Your task to perform on an android device: check data usage Image 0: 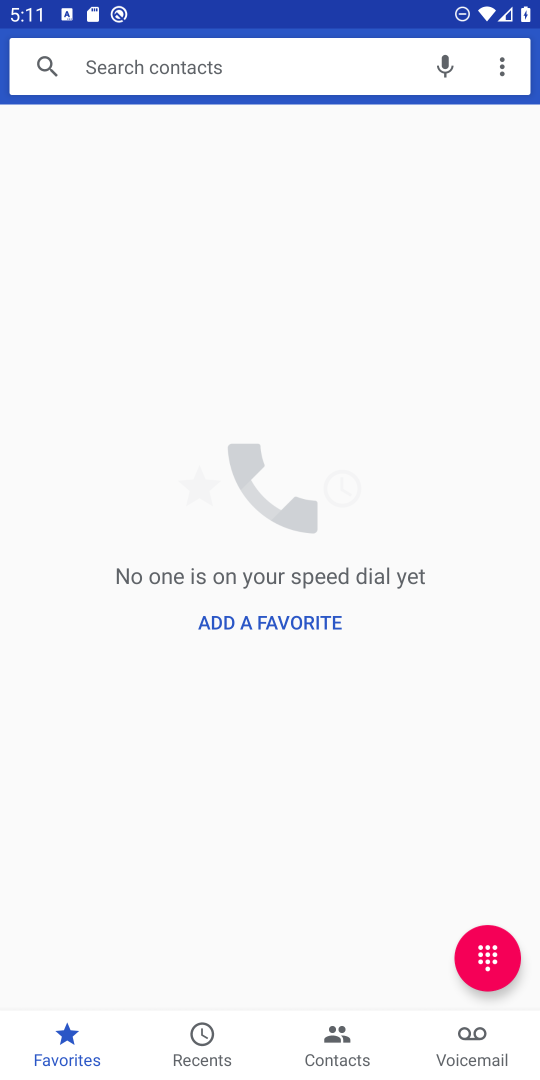
Step 0: press home button
Your task to perform on an android device: check data usage Image 1: 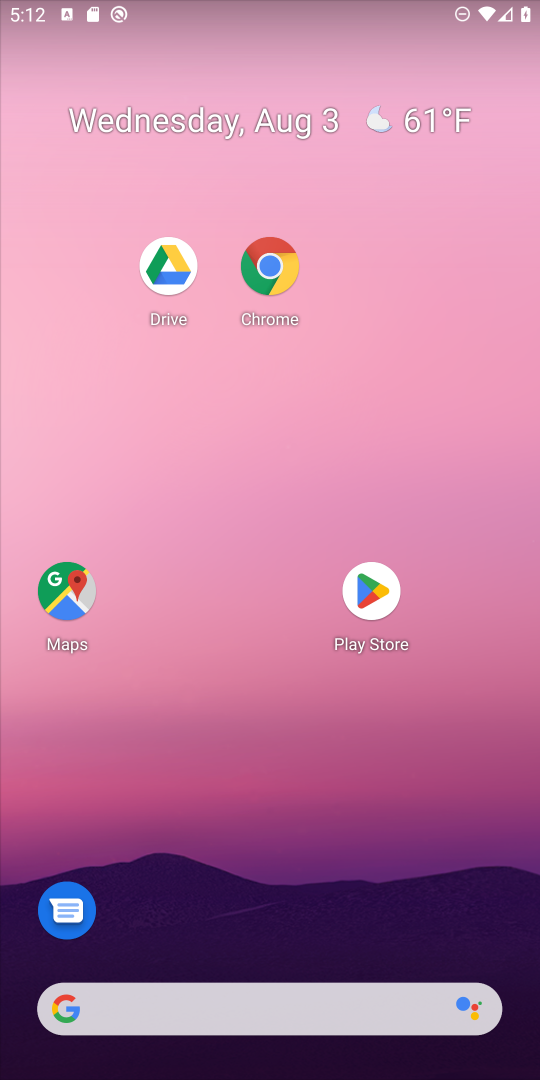
Step 1: drag from (402, 850) to (444, 0)
Your task to perform on an android device: check data usage Image 2: 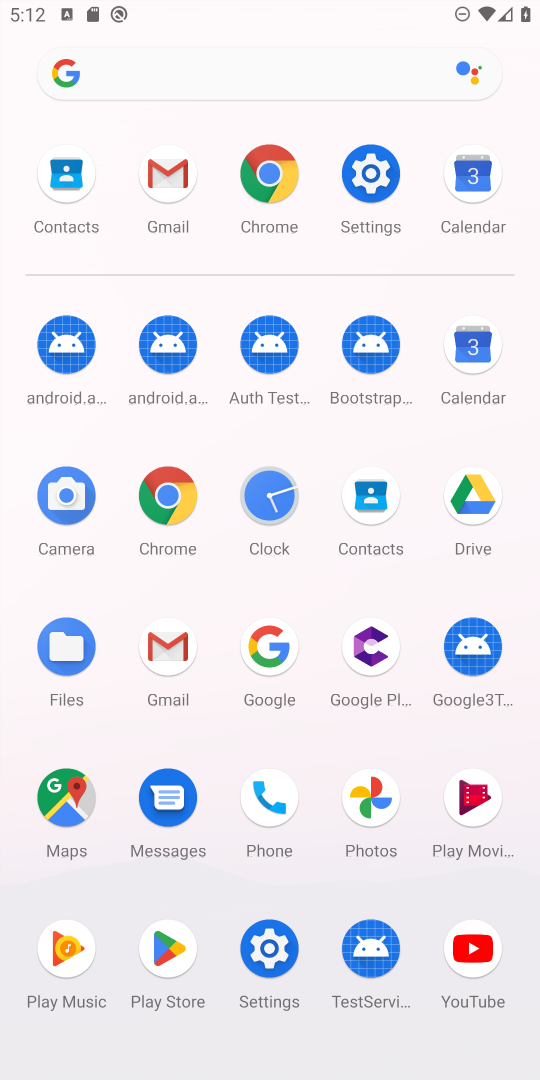
Step 2: click (377, 277)
Your task to perform on an android device: check data usage Image 3: 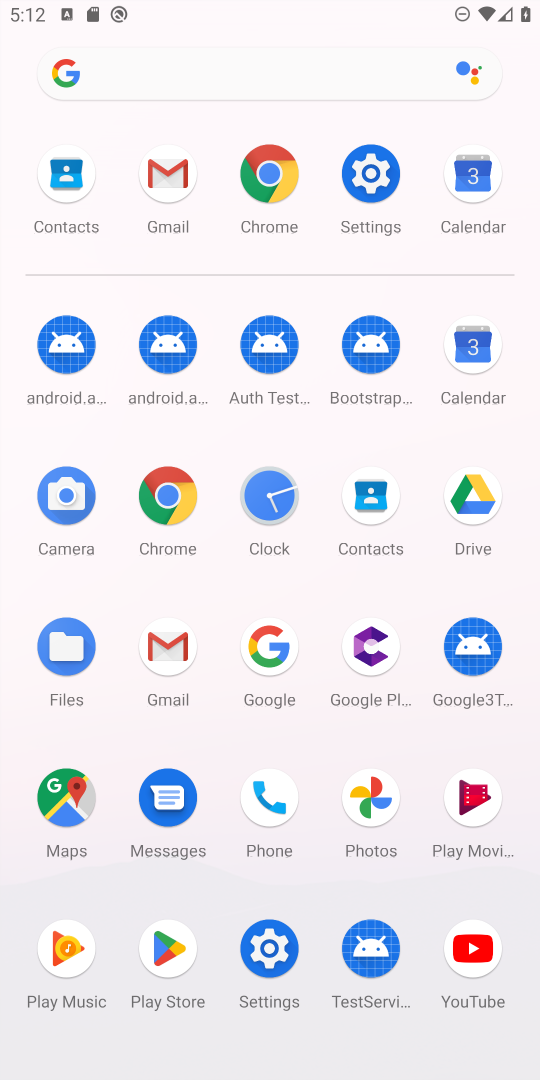
Step 3: click (358, 163)
Your task to perform on an android device: check data usage Image 4: 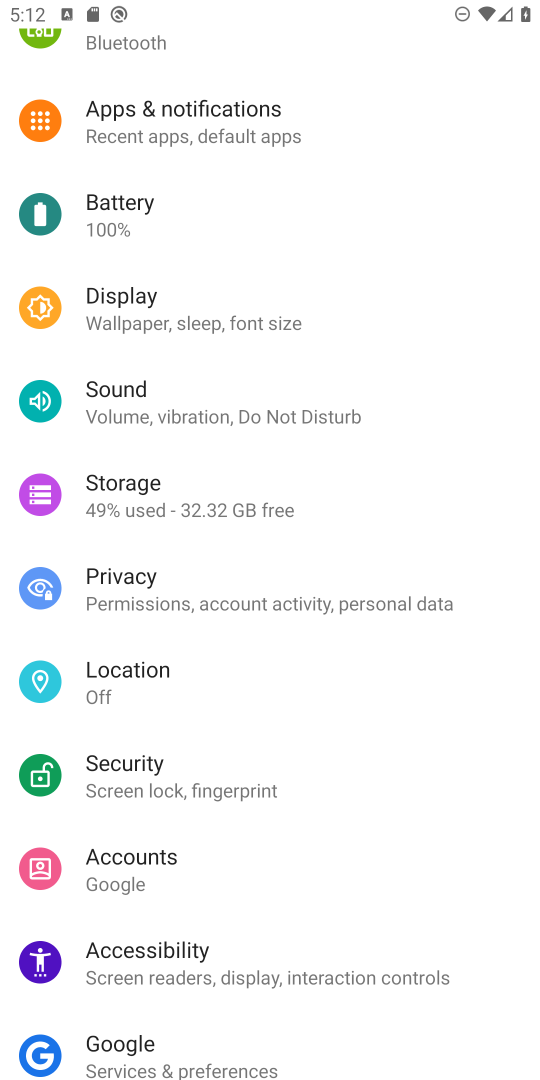
Step 4: drag from (403, 334) to (428, 945)
Your task to perform on an android device: check data usage Image 5: 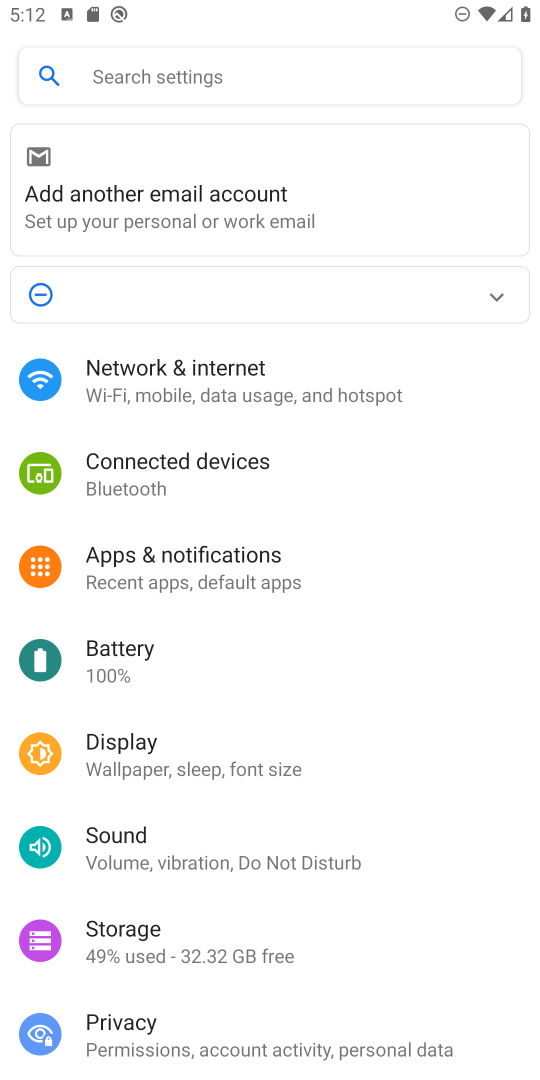
Step 5: click (301, 384)
Your task to perform on an android device: check data usage Image 6: 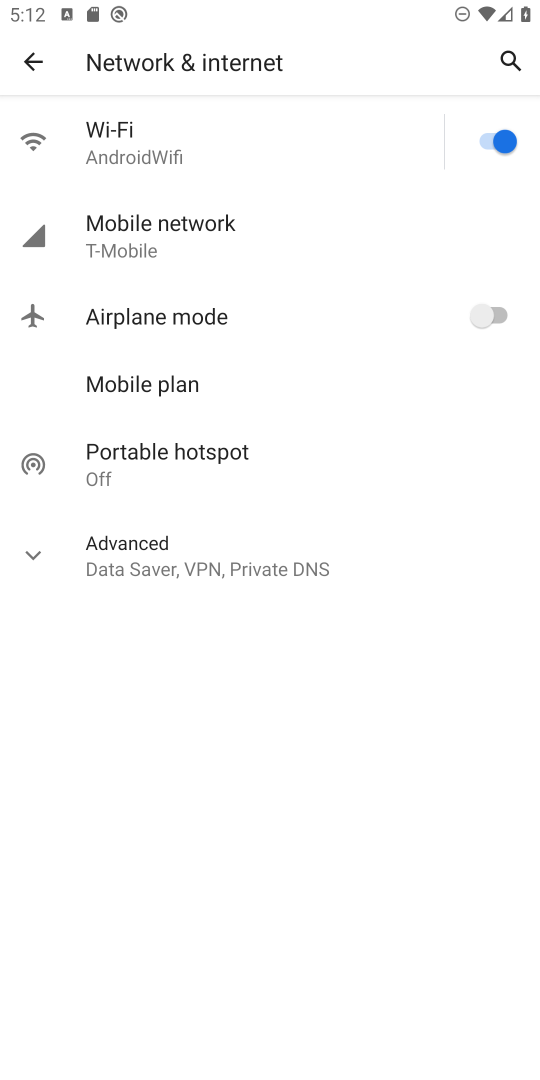
Step 6: click (166, 242)
Your task to perform on an android device: check data usage Image 7: 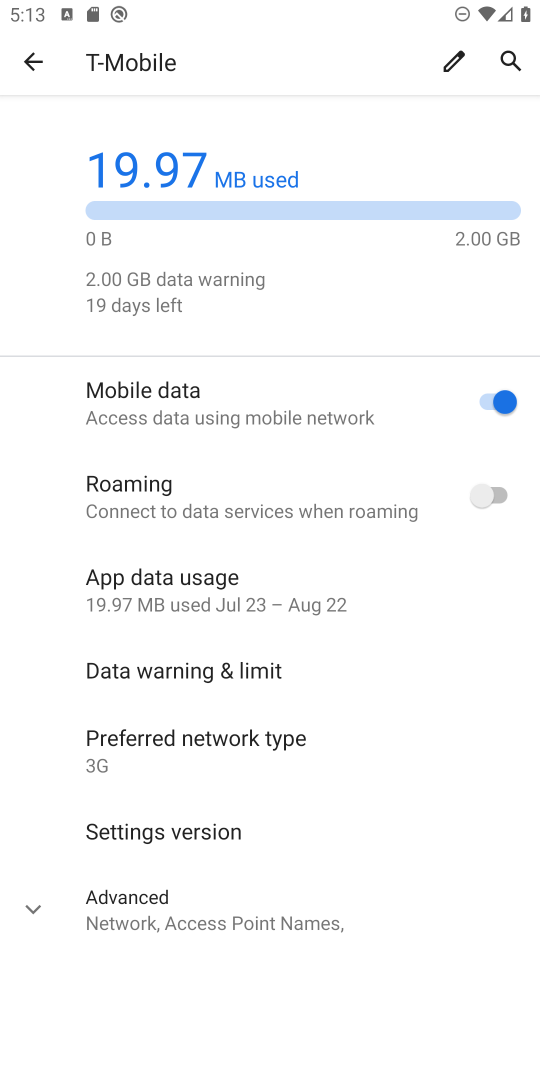
Step 7: task complete